Your task to perform on an android device: toggle javascript in the chrome app Image 0: 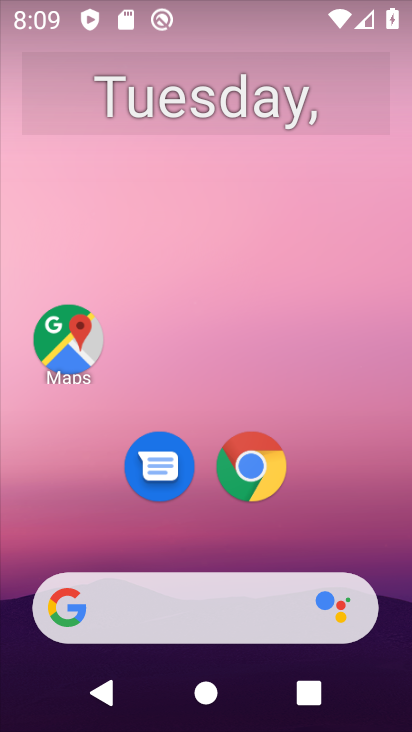
Step 0: click (248, 460)
Your task to perform on an android device: toggle javascript in the chrome app Image 1: 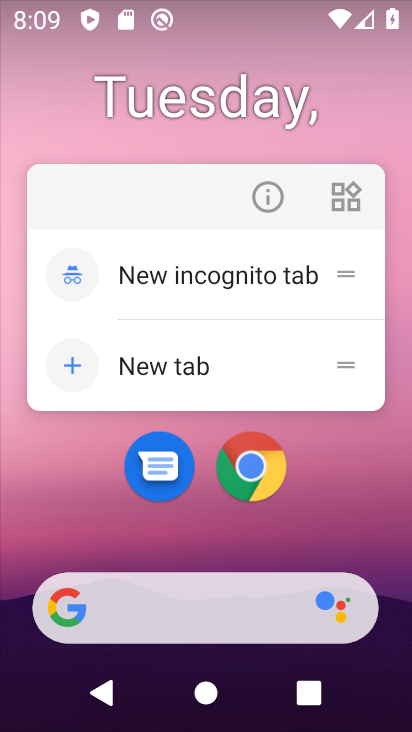
Step 1: click (241, 479)
Your task to perform on an android device: toggle javascript in the chrome app Image 2: 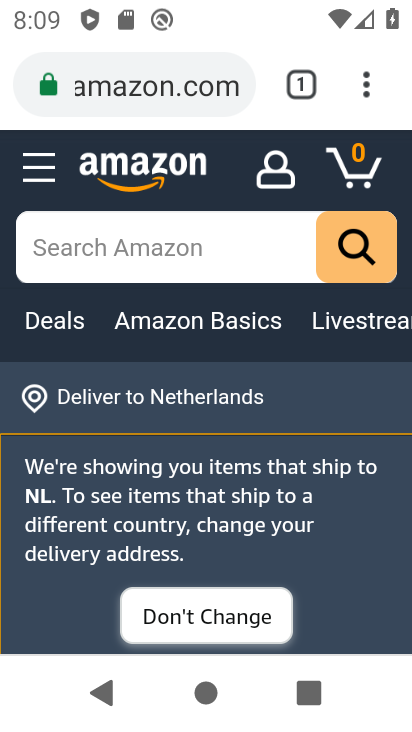
Step 2: click (370, 88)
Your task to perform on an android device: toggle javascript in the chrome app Image 3: 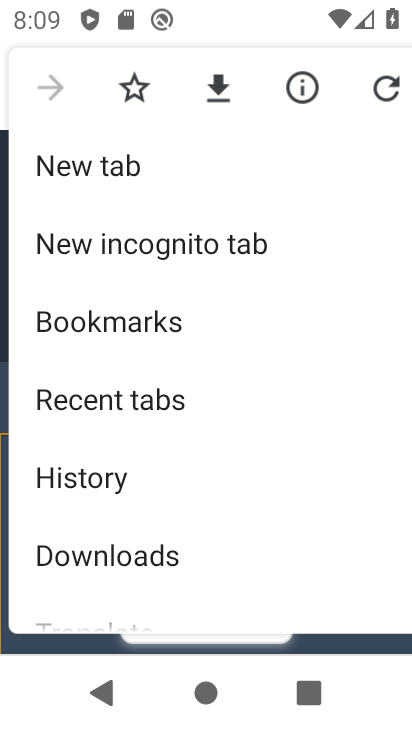
Step 3: drag from (148, 525) to (201, 264)
Your task to perform on an android device: toggle javascript in the chrome app Image 4: 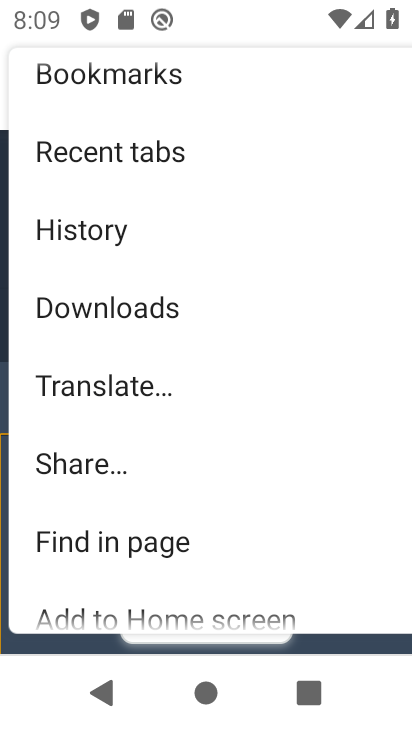
Step 4: drag from (144, 493) to (162, 370)
Your task to perform on an android device: toggle javascript in the chrome app Image 5: 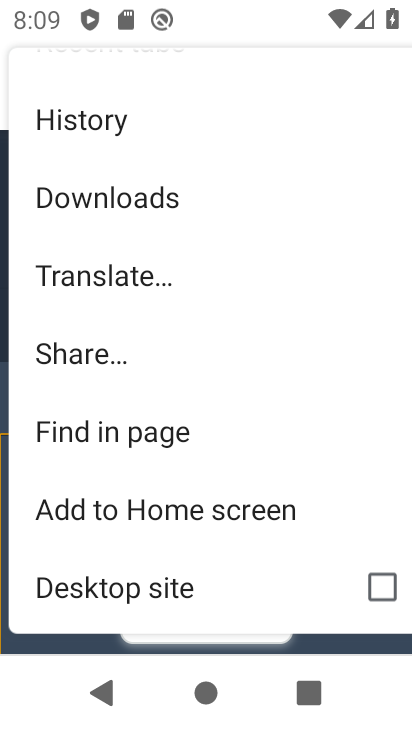
Step 5: drag from (156, 543) to (216, 236)
Your task to perform on an android device: toggle javascript in the chrome app Image 6: 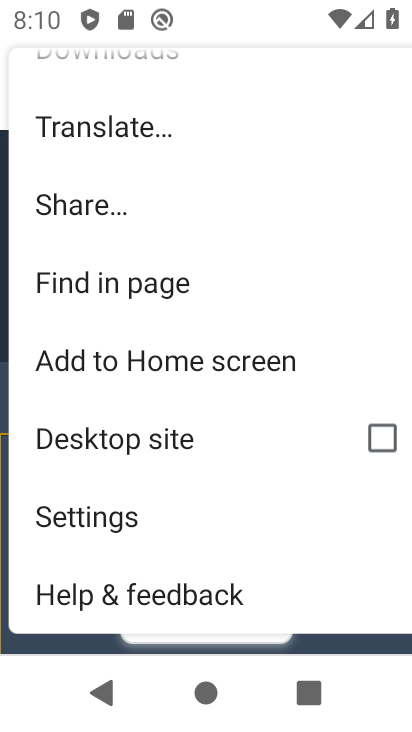
Step 6: click (144, 523)
Your task to perform on an android device: toggle javascript in the chrome app Image 7: 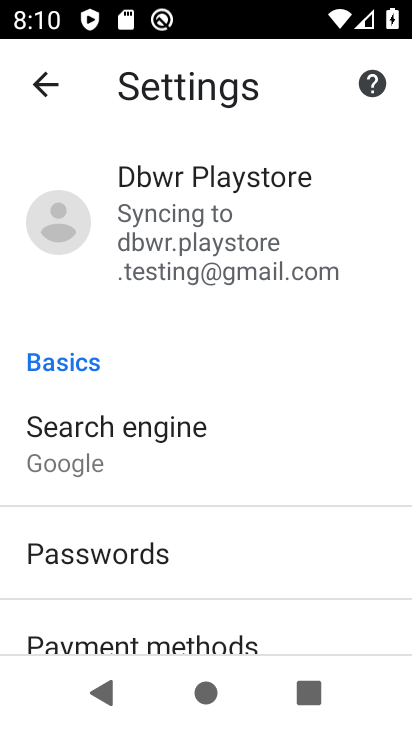
Step 7: drag from (141, 561) to (228, 232)
Your task to perform on an android device: toggle javascript in the chrome app Image 8: 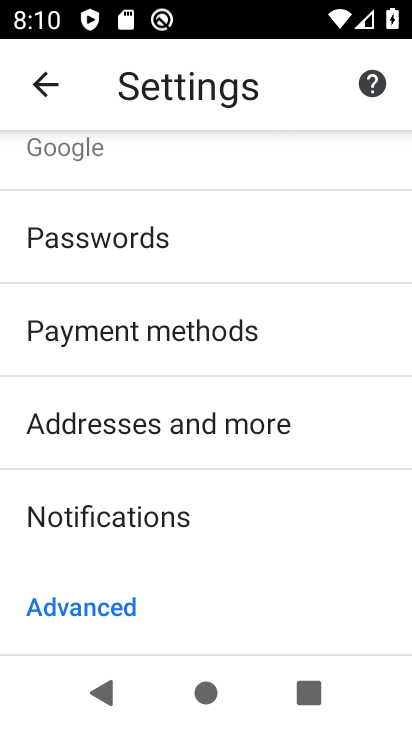
Step 8: drag from (198, 505) to (241, 285)
Your task to perform on an android device: toggle javascript in the chrome app Image 9: 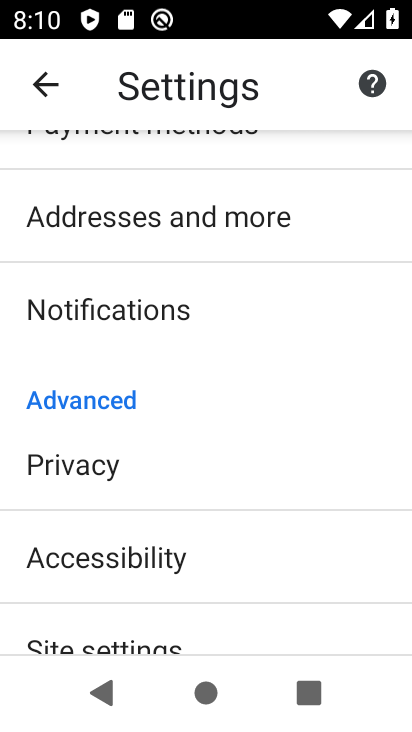
Step 9: drag from (188, 600) to (212, 323)
Your task to perform on an android device: toggle javascript in the chrome app Image 10: 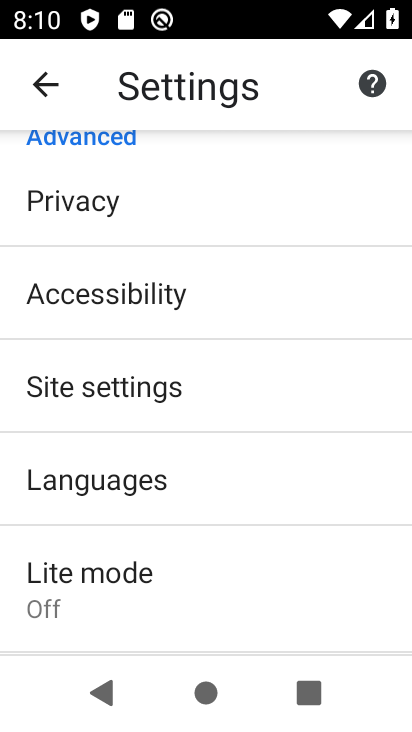
Step 10: click (163, 397)
Your task to perform on an android device: toggle javascript in the chrome app Image 11: 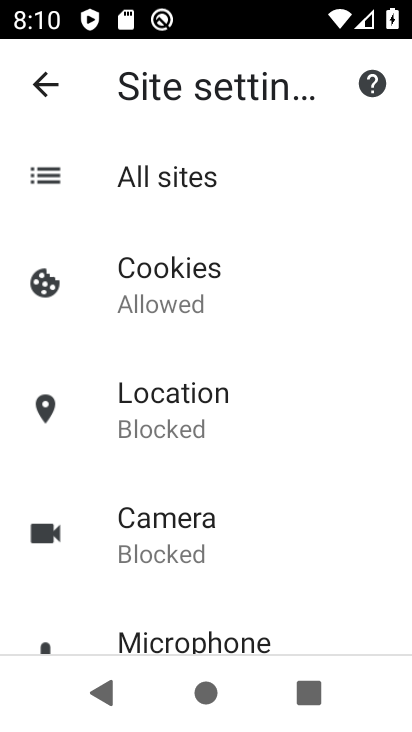
Step 11: drag from (190, 617) to (208, 336)
Your task to perform on an android device: toggle javascript in the chrome app Image 12: 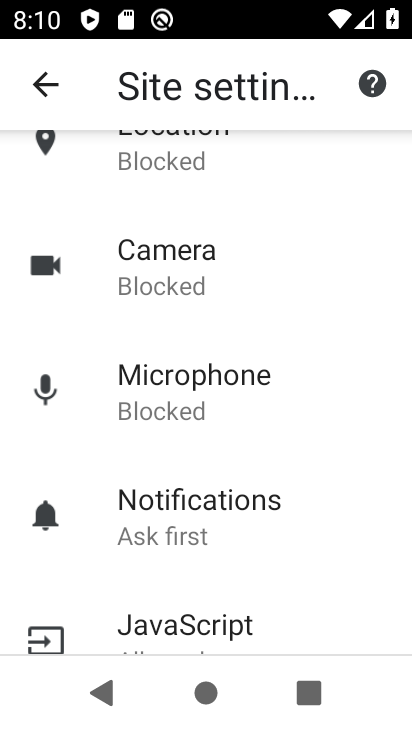
Step 12: click (165, 627)
Your task to perform on an android device: toggle javascript in the chrome app Image 13: 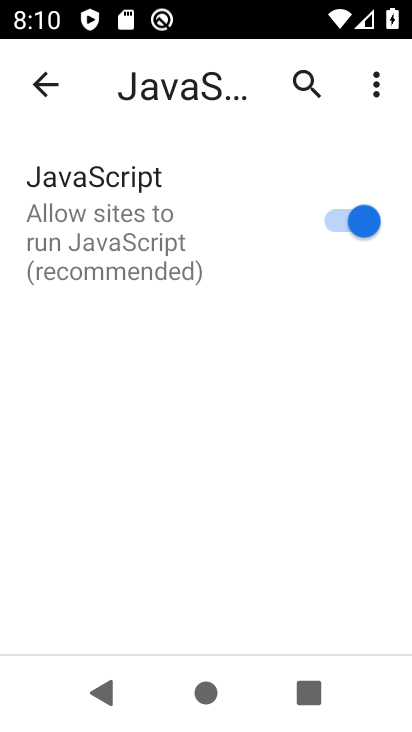
Step 13: click (336, 224)
Your task to perform on an android device: toggle javascript in the chrome app Image 14: 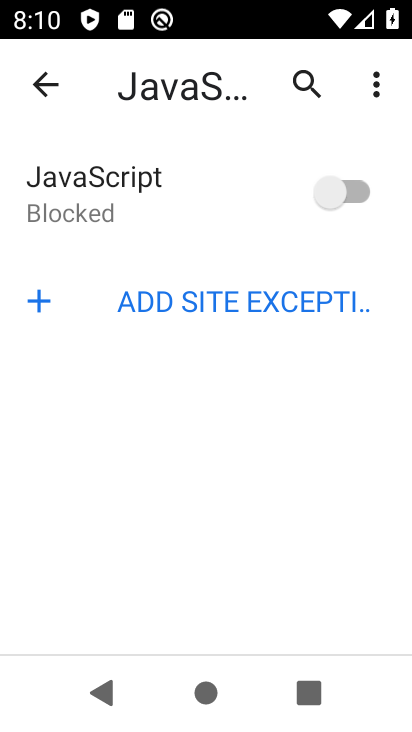
Step 14: task complete